Your task to perform on an android device: open wifi settings Image 0: 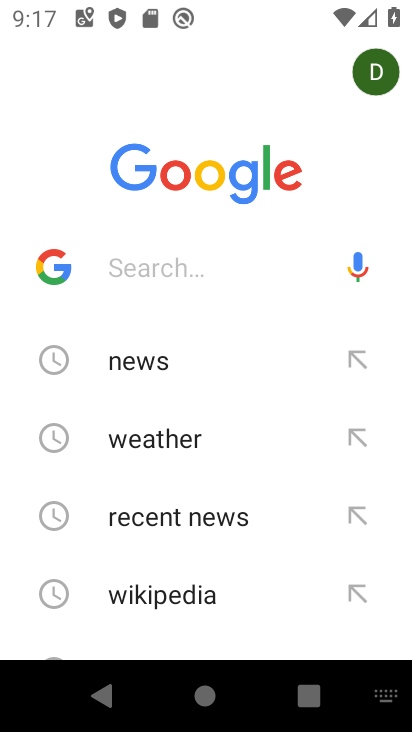
Step 0: press home button
Your task to perform on an android device: open wifi settings Image 1: 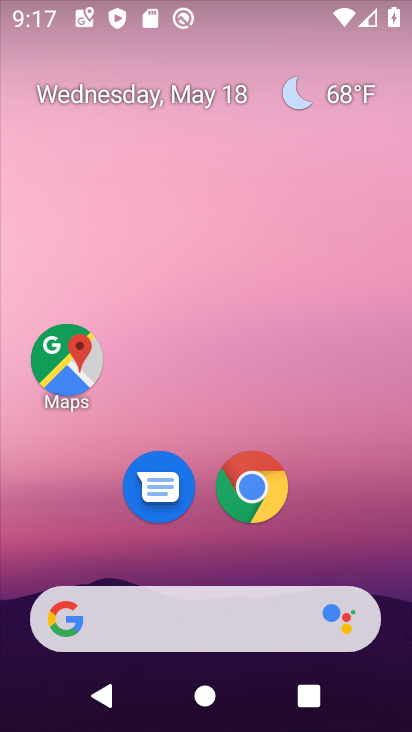
Step 1: drag from (341, 537) to (377, 187)
Your task to perform on an android device: open wifi settings Image 2: 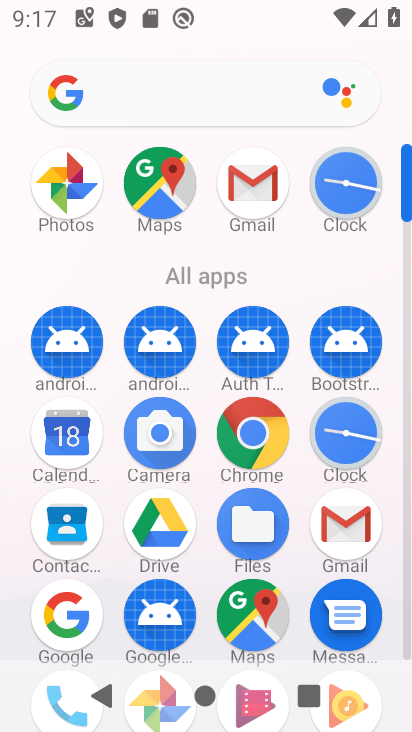
Step 2: drag from (213, 647) to (215, 344)
Your task to perform on an android device: open wifi settings Image 3: 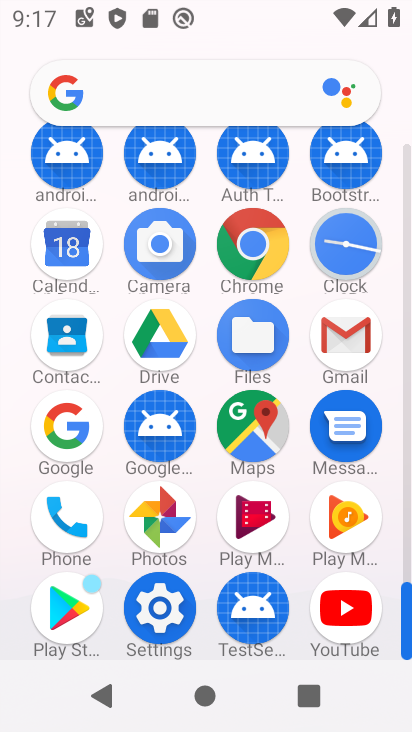
Step 3: click (162, 631)
Your task to perform on an android device: open wifi settings Image 4: 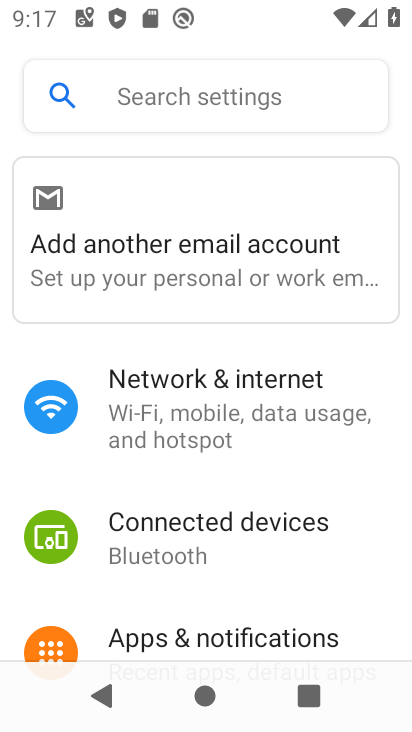
Step 4: click (147, 402)
Your task to perform on an android device: open wifi settings Image 5: 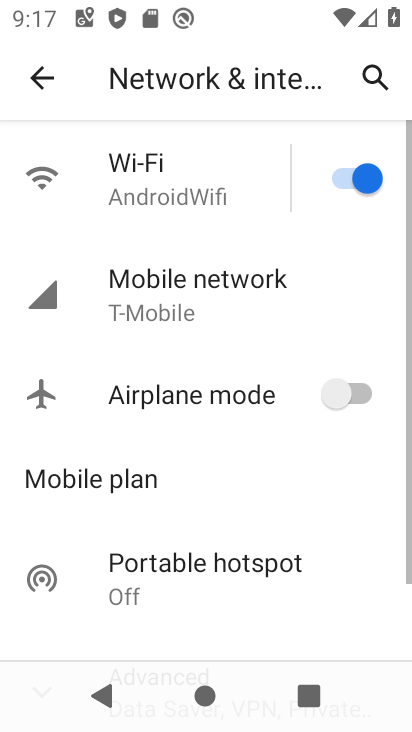
Step 5: click (160, 146)
Your task to perform on an android device: open wifi settings Image 6: 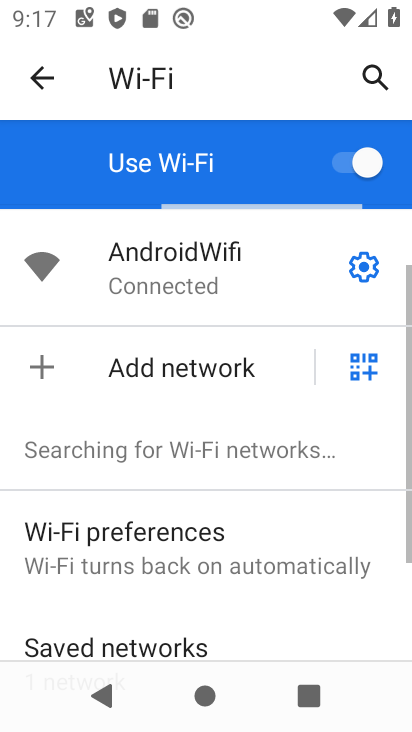
Step 6: click (355, 281)
Your task to perform on an android device: open wifi settings Image 7: 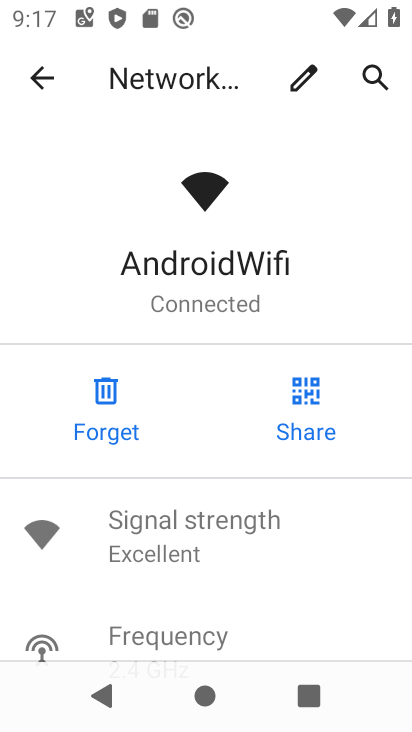
Step 7: task complete